Your task to perform on an android device: Go to battery settings Image 0: 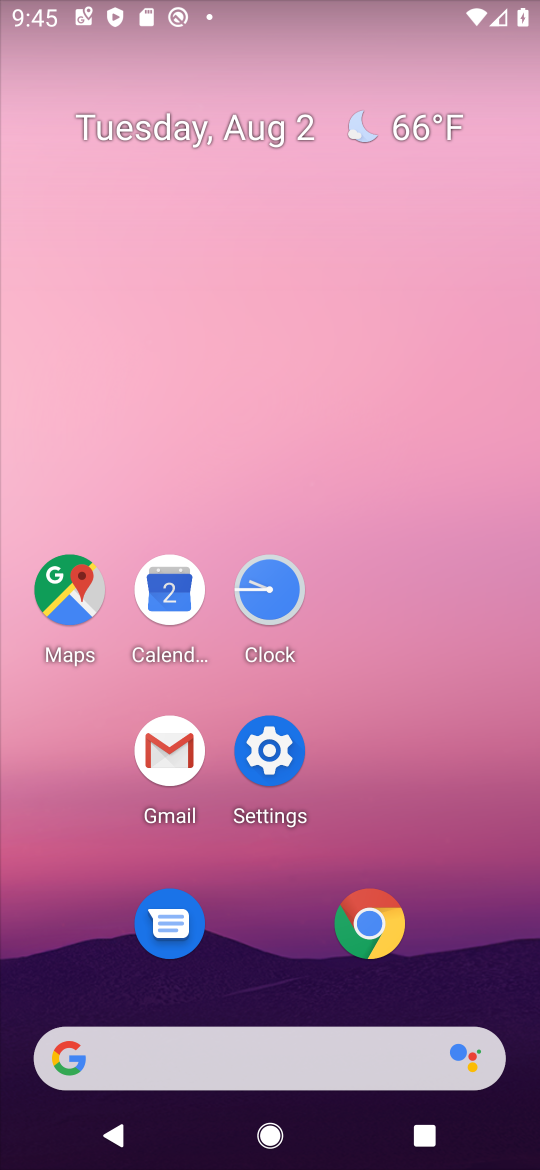
Step 0: click (242, 750)
Your task to perform on an android device: Go to battery settings Image 1: 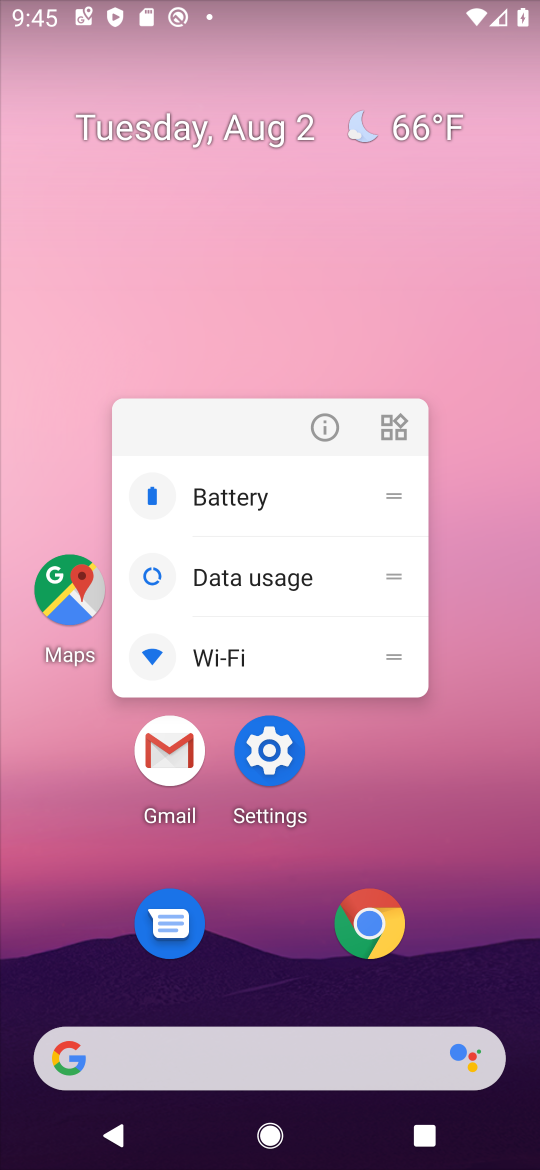
Step 1: click (245, 753)
Your task to perform on an android device: Go to battery settings Image 2: 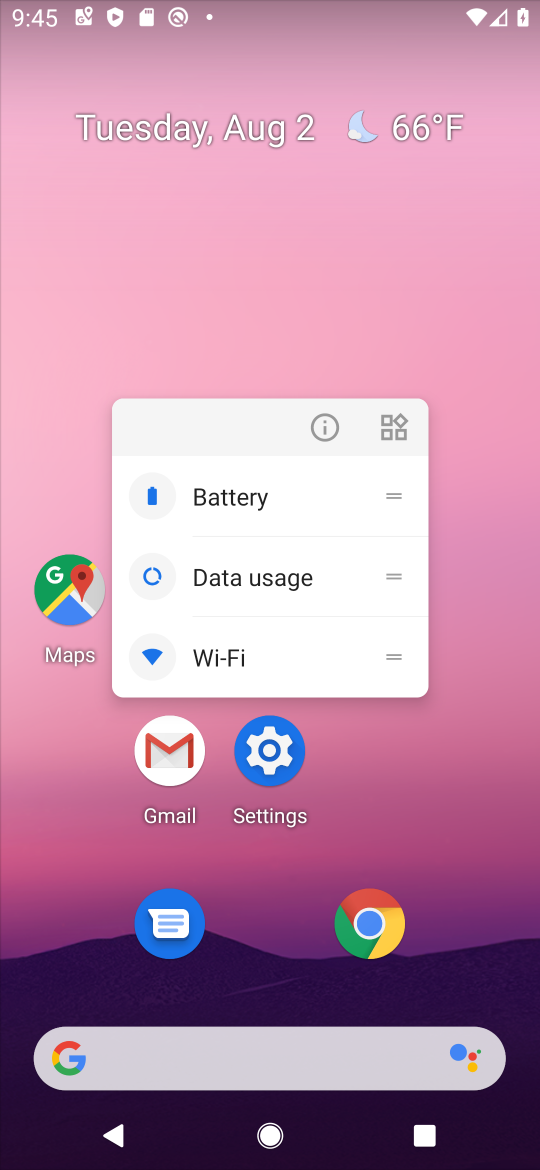
Step 2: click (265, 758)
Your task to perform on an android device: Go to battery settings Image 3: 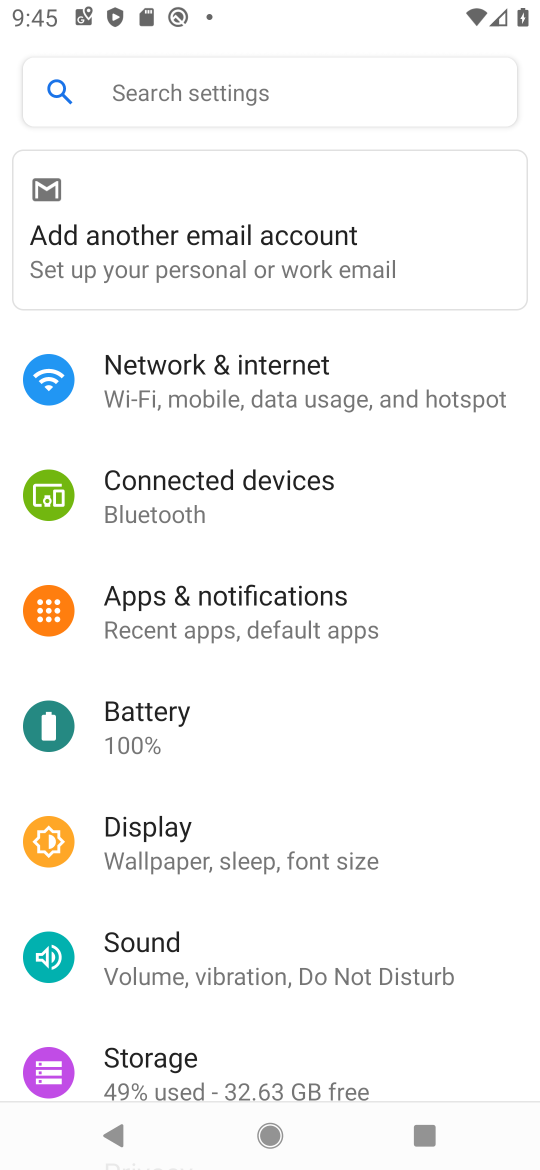
Step 3: click (133, 735)
Your task to perform on an android device: Go to battery settings Image 4: 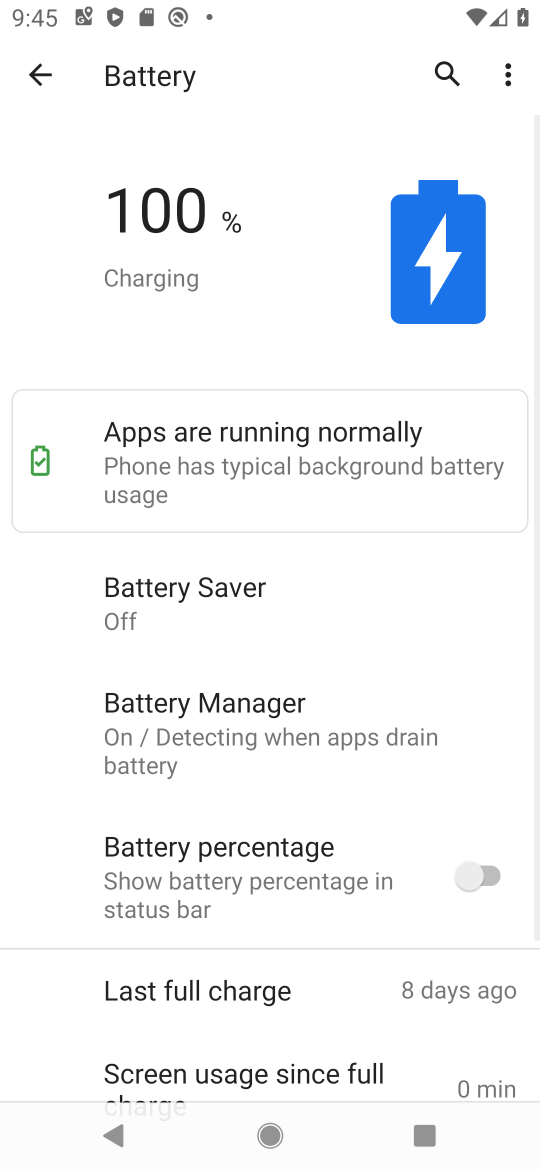
Step 4: task complete